Your task to perform on an android device: open app "Booking.com: Hotels and more" (install if not already installed) Image 0: 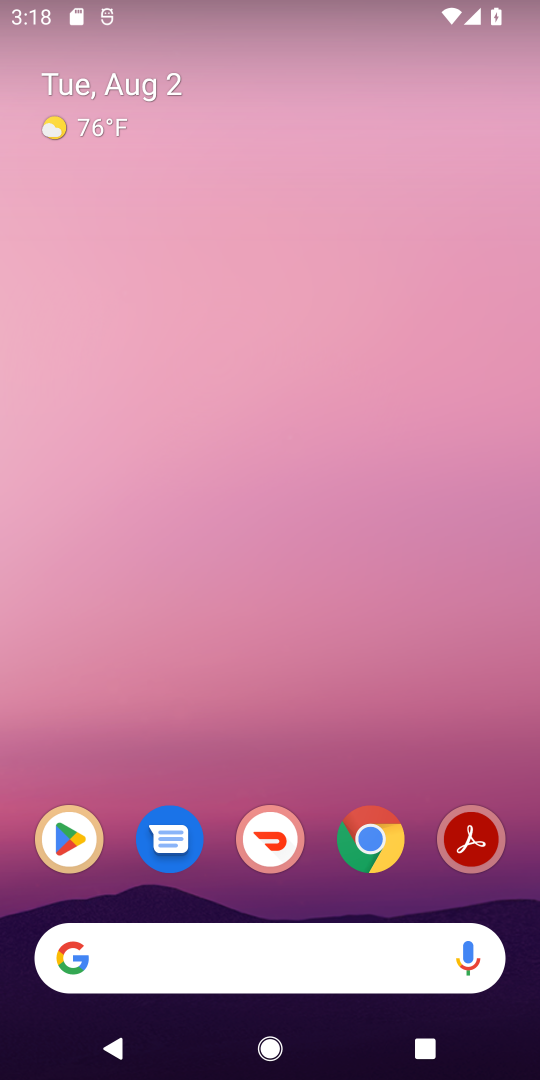
Step 0: click (63, 866)
Your task to perform on an android device: open app "Booking.com: Hotels and more" (install if not already installed) Image 1: 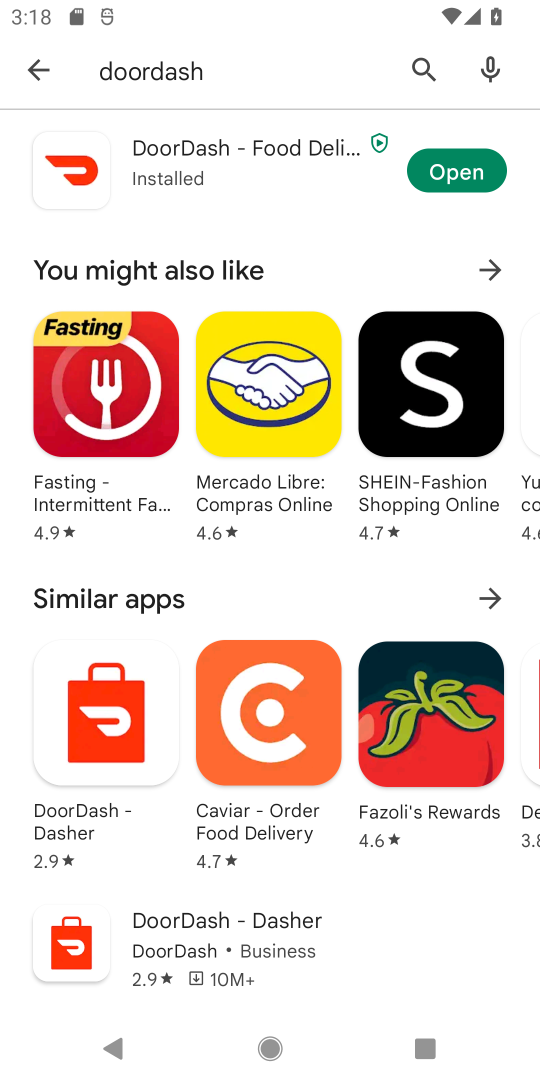
Step 1: click (423, 62)
Your task to perform on an android device: open app "Booking.com: Hotels and more" (install if not already installed) Image 2: 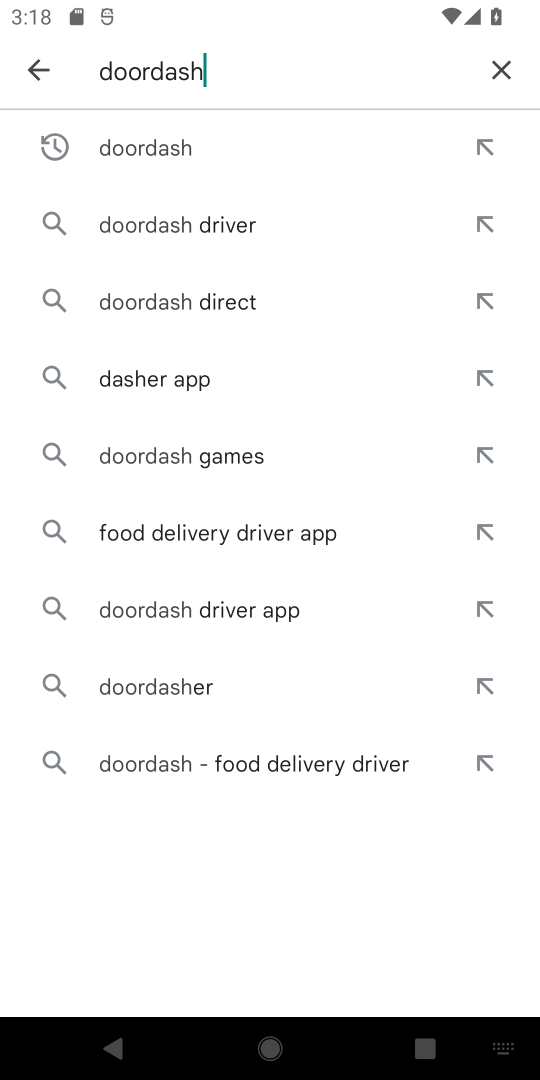
Step 2: click (495, 66)
Your task to perform on an android device: open app "Booking.com: Hotels and more" (install if not already installed) Image 3: 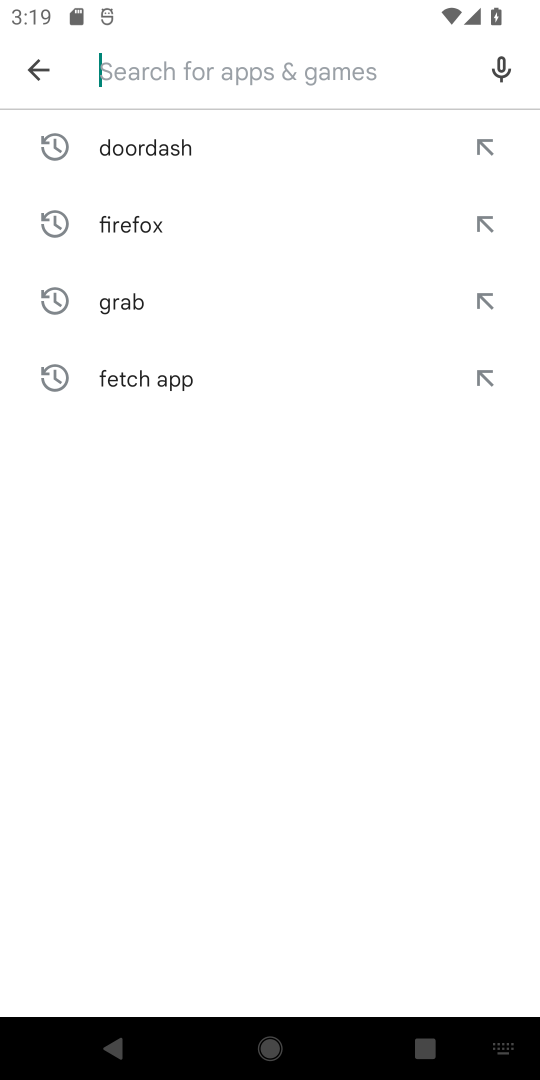
Step 3: type "booking"
Your task to perform on an android device: open app "Booking.com: Hotels and more" (install if not already installed) Image 4: 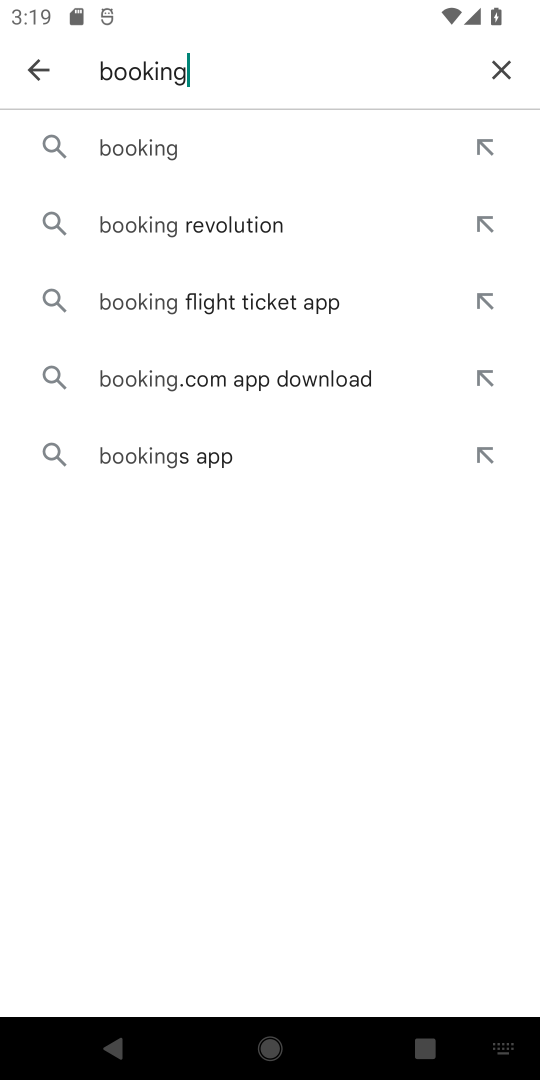
Step 4: click (218, 170)
Your task to perform on an android device: open app "Booking.com: Hotels and more" (install if not already installed) Image 5: 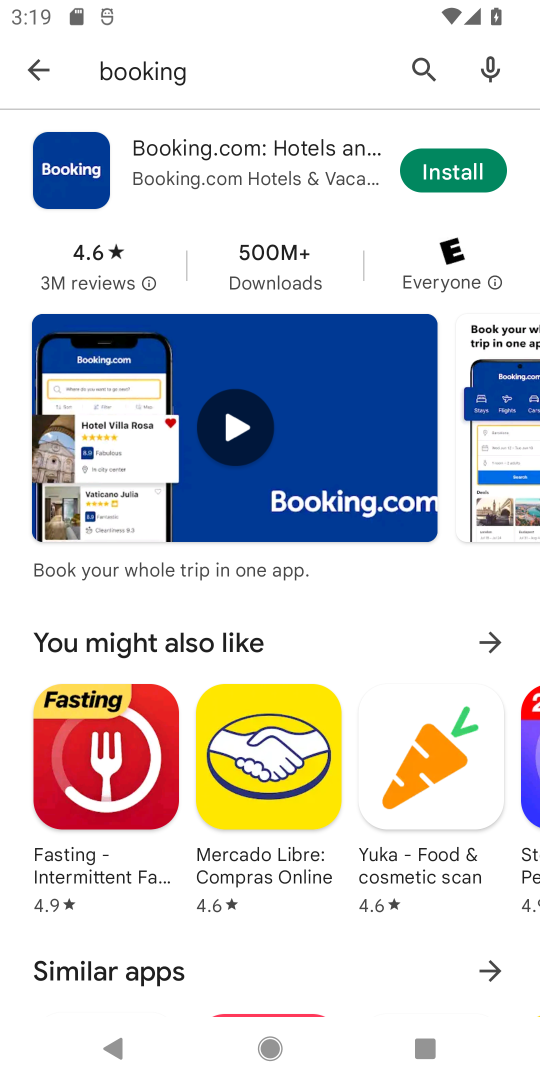
Step 5: click (442, 163)
Your task to perform on an android device: open app "Booking.com: Hotels and more" (install if not already installed) Image 6: 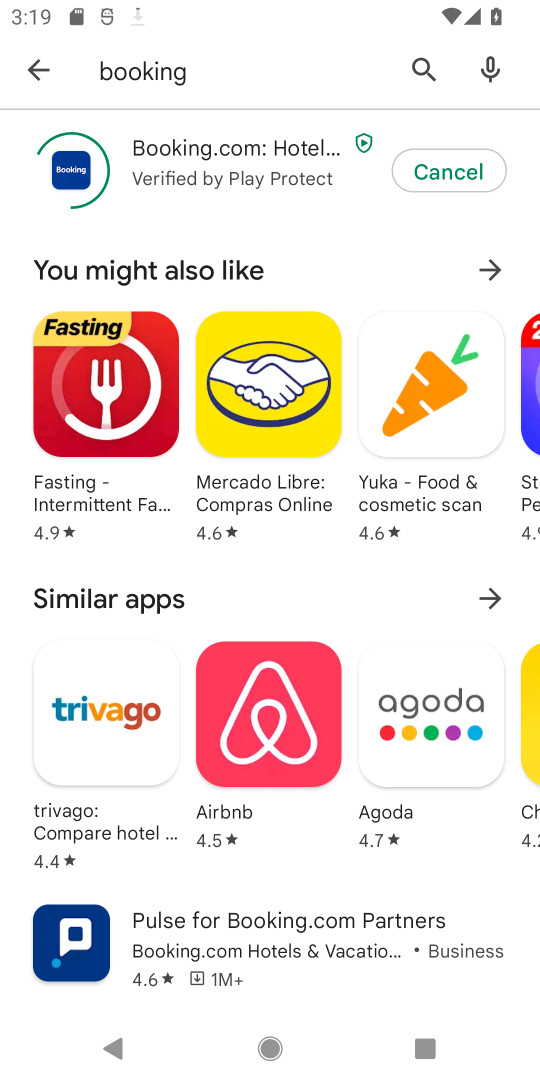
Step 6: task complete